Your task to perform on an android device: turn on notifications settings in the gmail app Image 0: 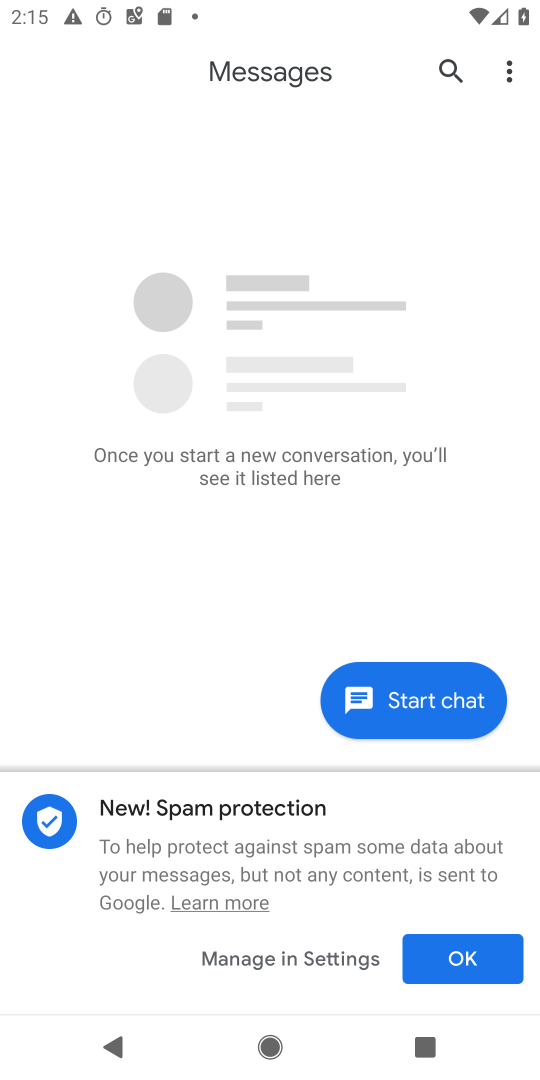
Step 0: press home button
Your task to perform on an android device: turn on notifications settings in the gmail app Image 1: 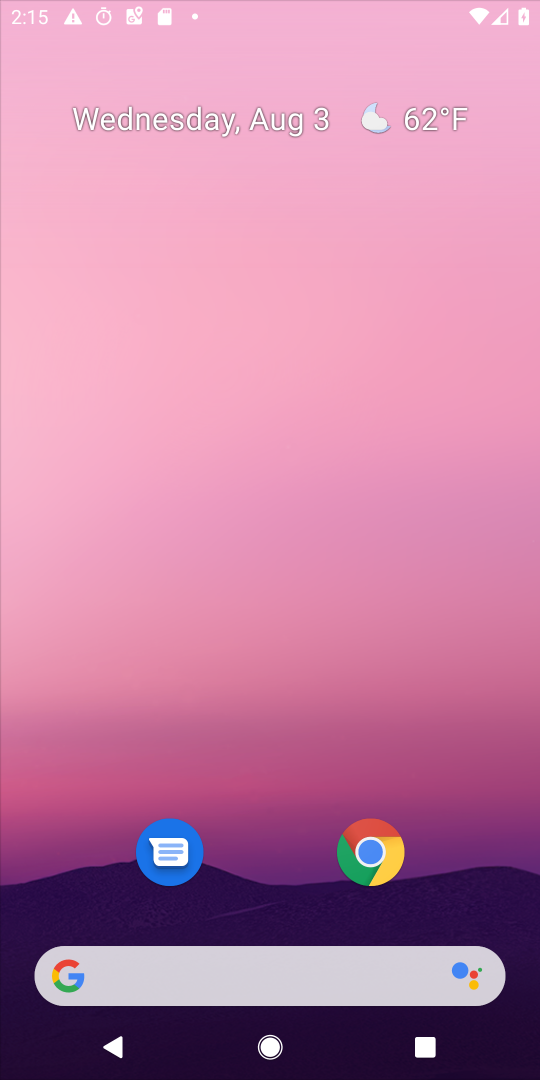
Step 1: drag from (481, 923) to (129, 50)
Your task to perform on an android device: turn on notifications settings in the gmail app Image 2: 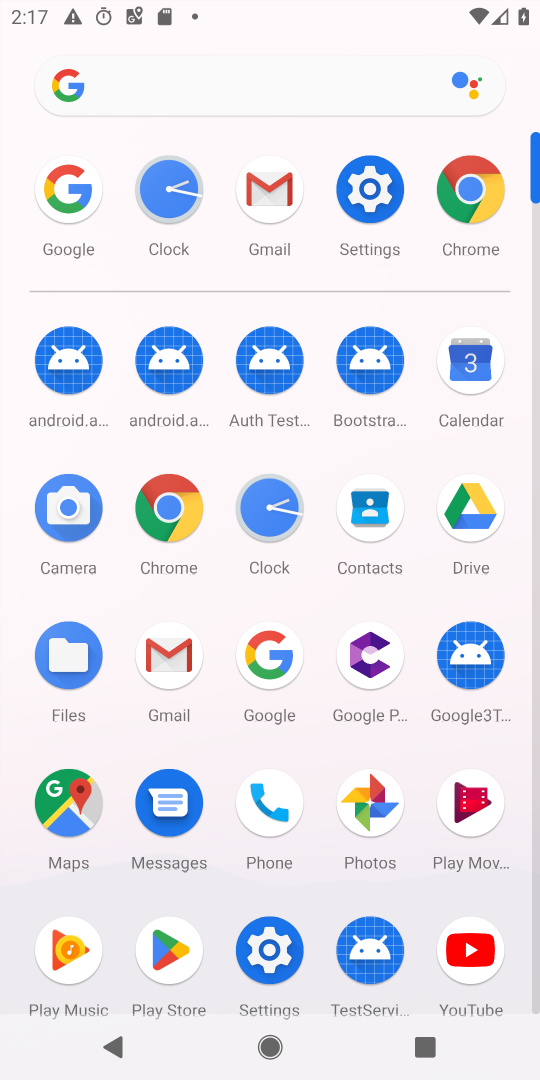
Step 2: click (149, 655)
Your task to perform on an android device: turn on notifications settings in the gmail app Image 3: 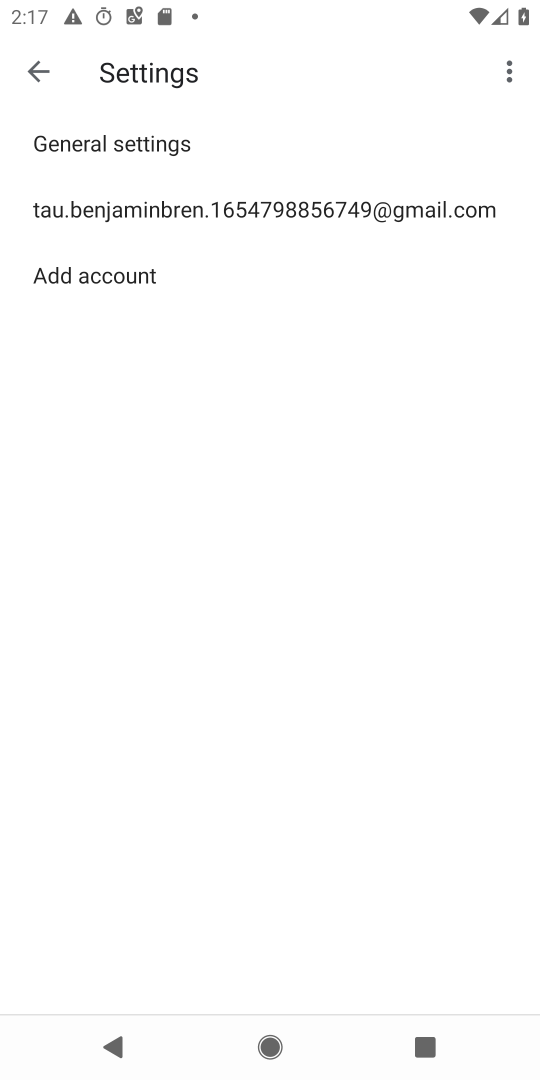
Step 3: click (302, 219)
Your task to perform on an android device: turn on notifications settings in the gmail app Image 4: 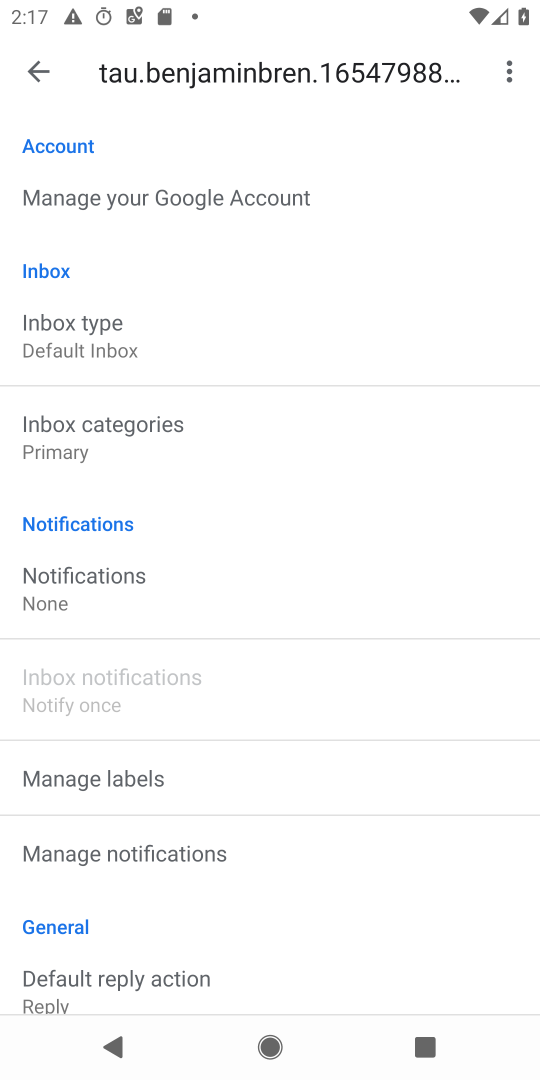
Step 4: click (147, 598)
Your task to perform on an android device: turn on notifications settings in the gmail app Image 5: 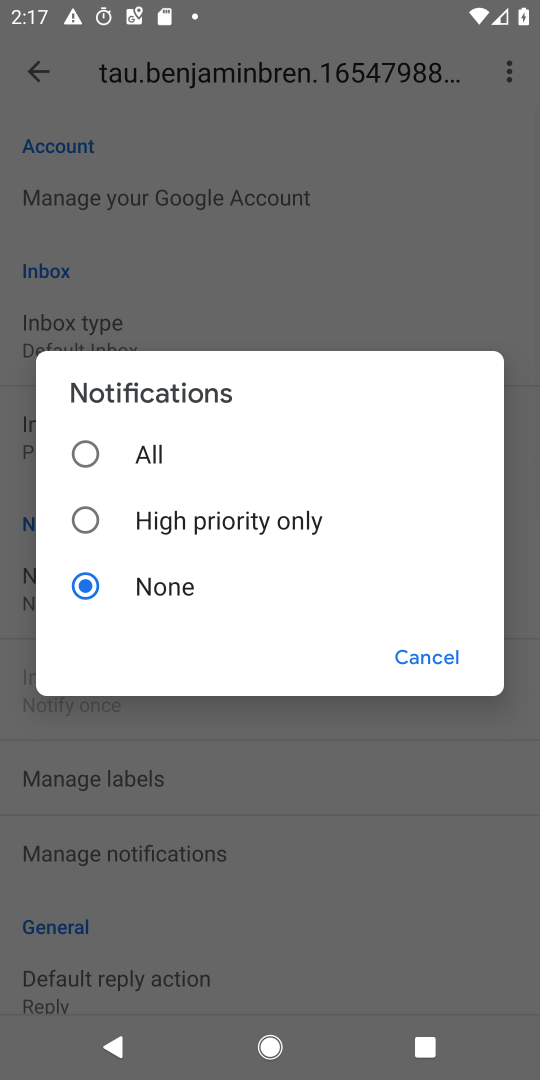
Step 5: click (119, 458)
Your task to perform on an android device: turn on notifications settings in the gmail app Image 6: 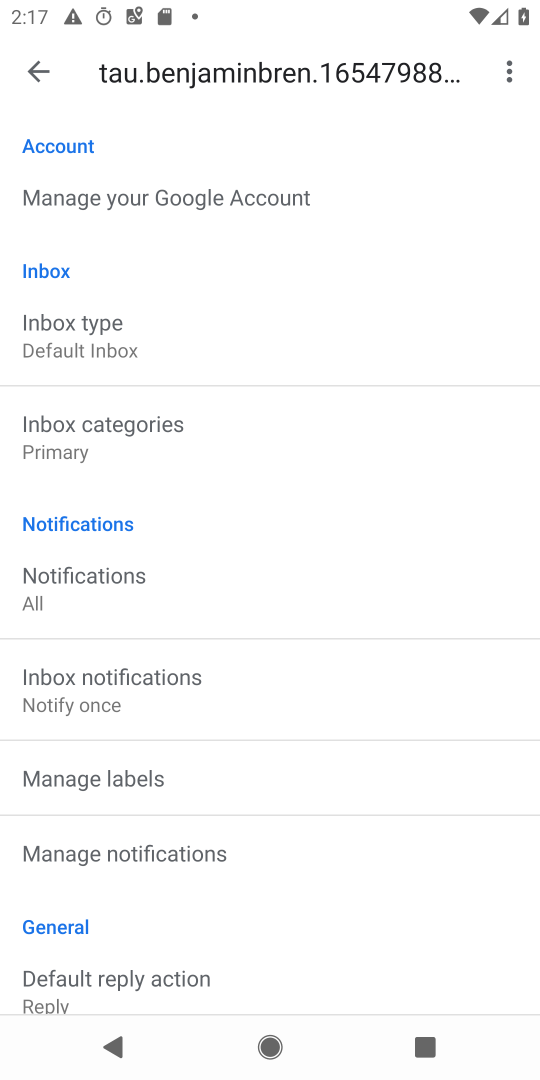
Step 6: task complete